Your task to perform on an android device: Open Google Image 0: 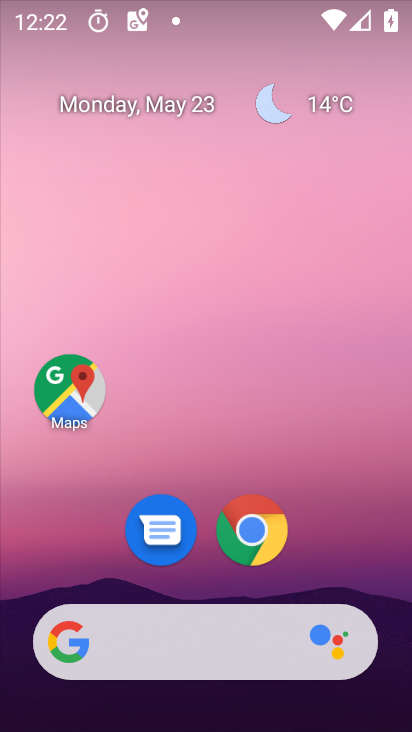
Step 0: drag from (397, 687) to (341, 196)
Your task to perform on an android device: Open Google Image 1: 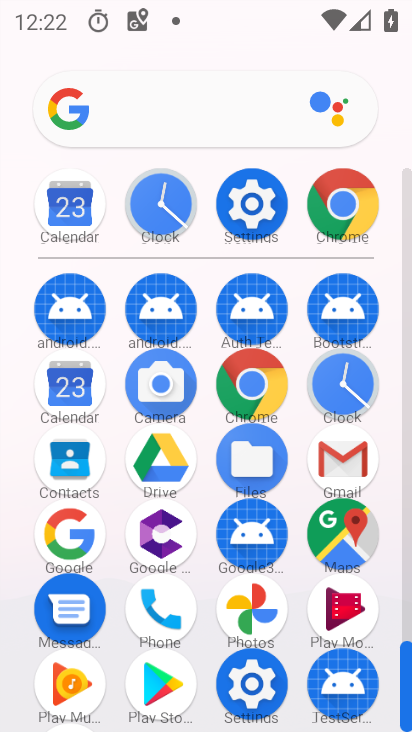
Step 1: click (67, 521)
Your task to perform on an android device: Open Google Image 2: 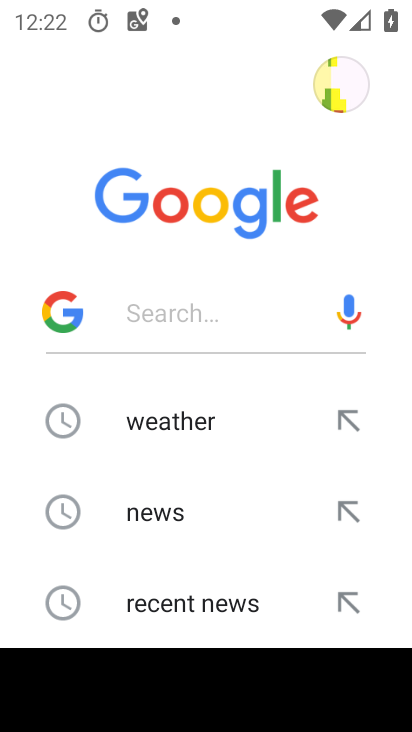
Step 2: task complete